Your task to perform on an android device: find snoozed emails in the gmail app Image 0: 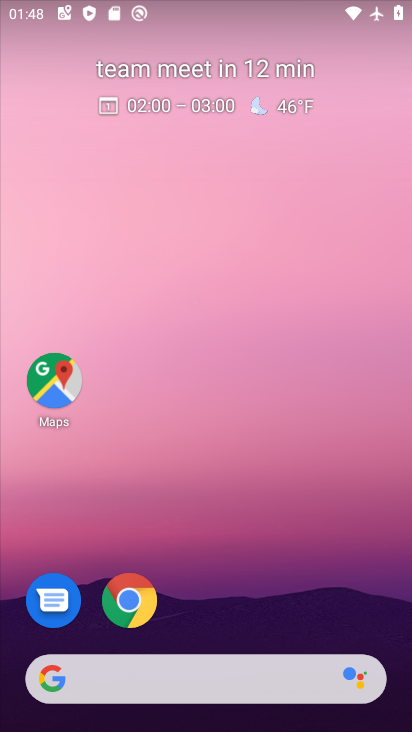
Step 0: drag from (238, 626) to (205, 117)
Your task to perform on an android device: find snoozed emails in the gmail app Image 1: 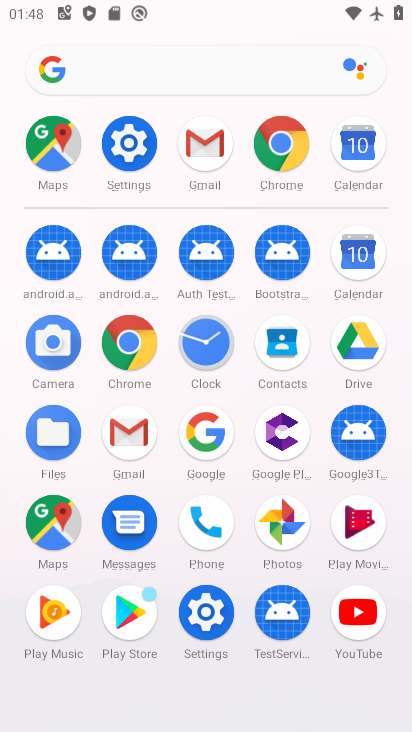
Step 1: click (138, 429)
Your task to perform on an android device: find snoozed emails in the gmail app Image 2: 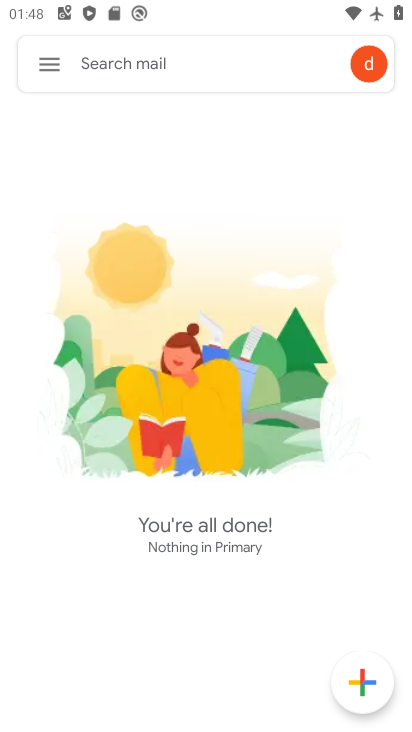
Step 2: click (49, 71)
Your task to perform on an android device: find snoozed emails in the gmail app Image 3: 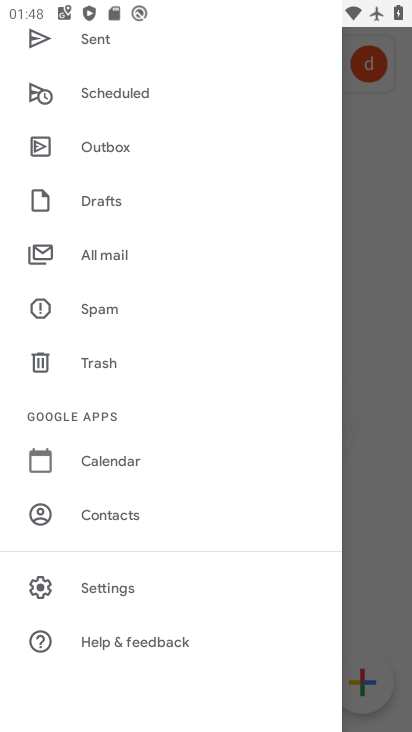
Step 3: drag from (98, 116) to (130, 353)
Your task to perform on an android device: find snoozed emails in the gmail app Image 4: 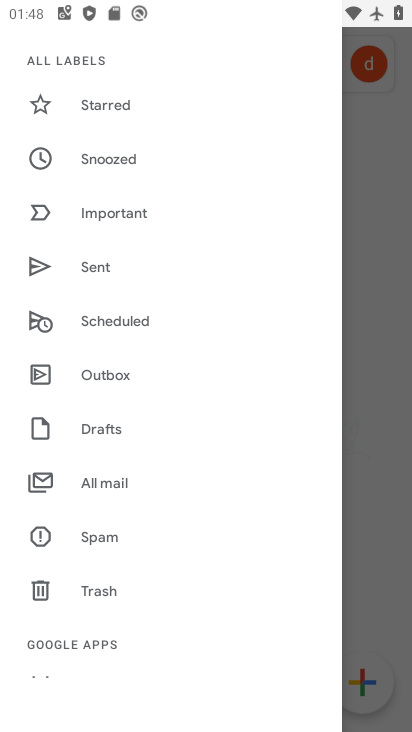
Step 4: click (98, 171)
Your task to perform on an android device: find snoozed emails in the gmail app Image 5: 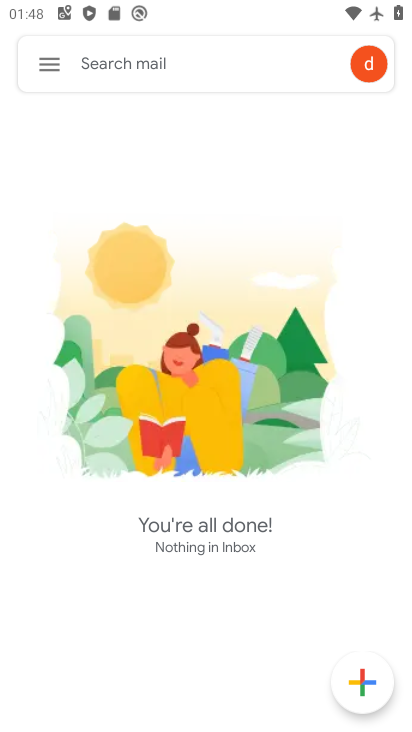
Step 5: task complete